Your task to perform on an android device: Show me popular videos on Youtube Image 0: 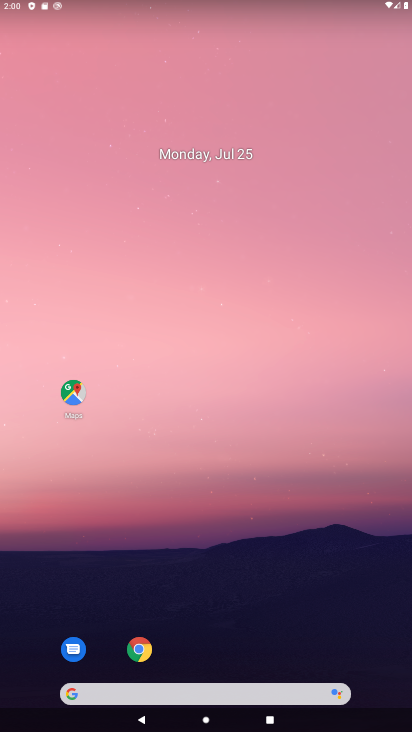
Step 0: drag from (380, 676) to (338, 45)
Your task to perform on an android device: Show me popular videos on Youtube Image 1: 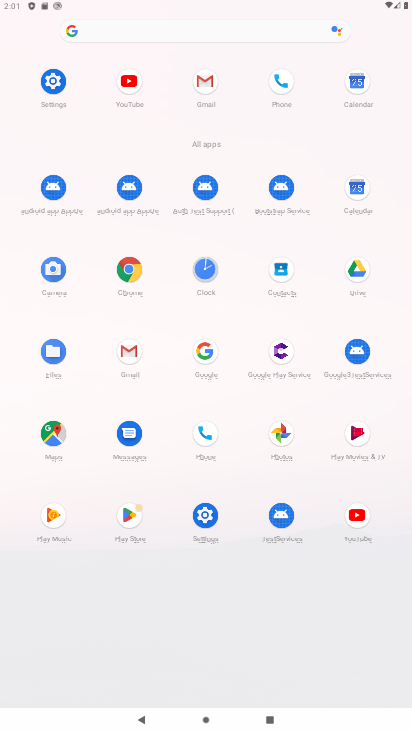
Step 1: click (356, 514)
Your task to perform on an android device: Show me popular videos on Youtube Image 2: 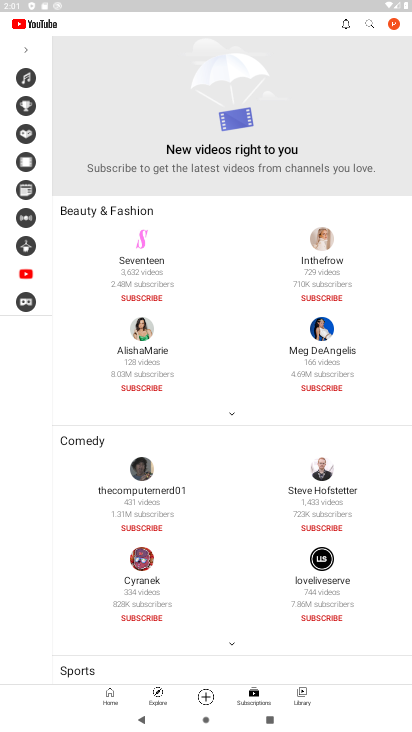
Step 2: press back button
Your task to perform on an android device: Show me popular videos on Youtube Image 3: 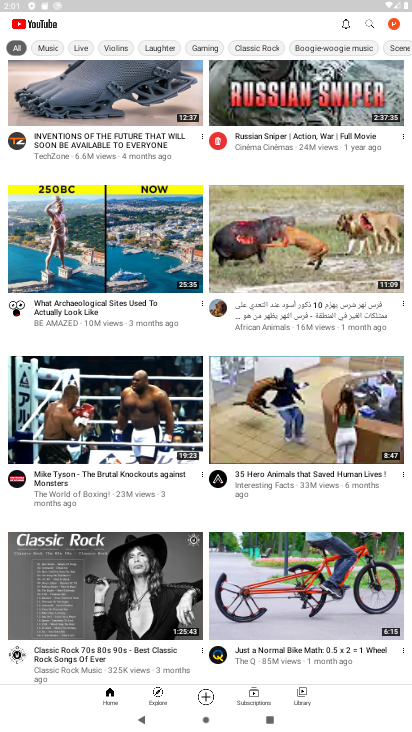
Step 3: drag from (206, 124) to (215, 397)
Your task to perform on an android device: Show me popular videos on Youtube Image 4: 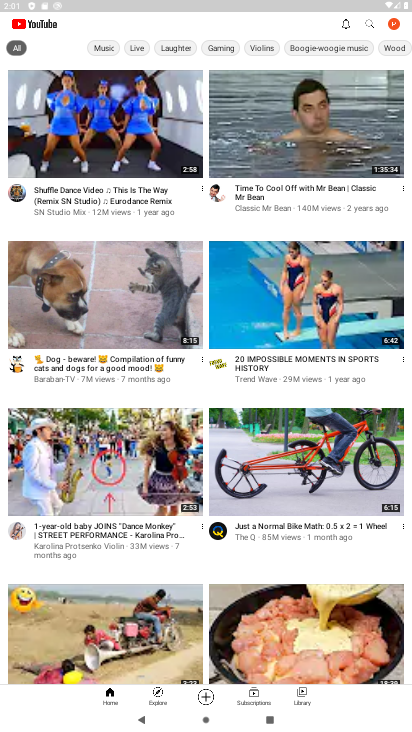
Step 4: drag from (206, 107) to (206, 409)
Your task to perform on an android device: Show me popular videos on Youtube Image 5: 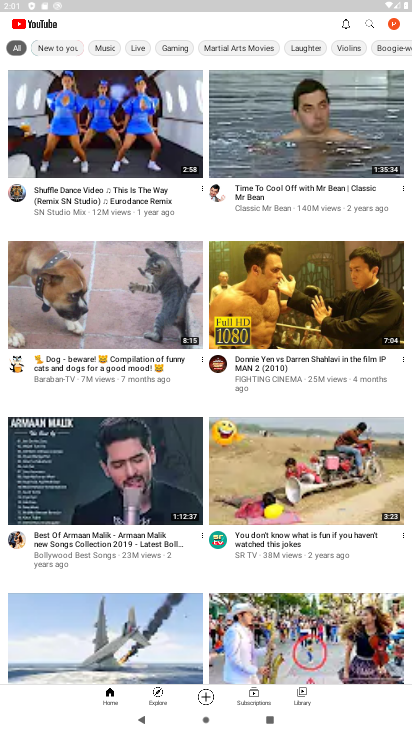
Step 5: click (153, 701)
Your task to perform on an android device: Show me popular videos on Youtube Image 6: 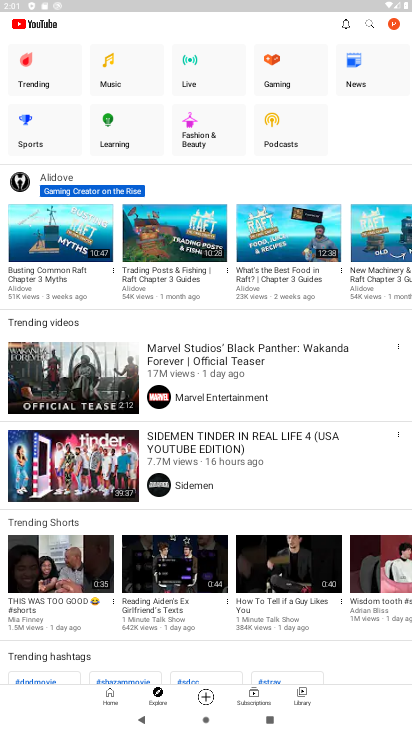
Step 6: click (30, 74)
Your task to perform on an android device: Show me popular videos on Youtube Image 7: 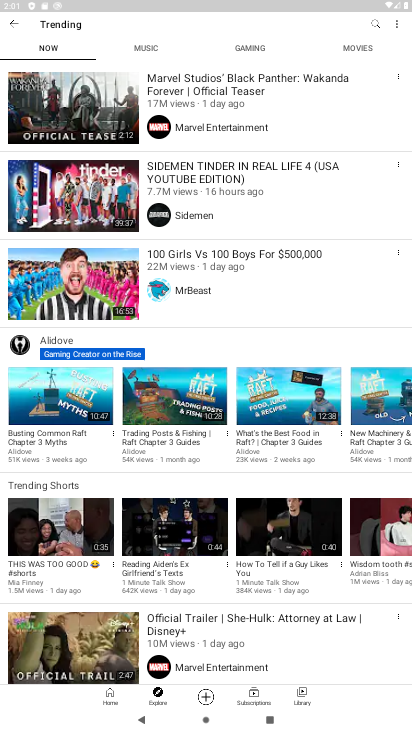
Step 7: task complete